Your task to perform on an android device: What is the recent news? Image 0: 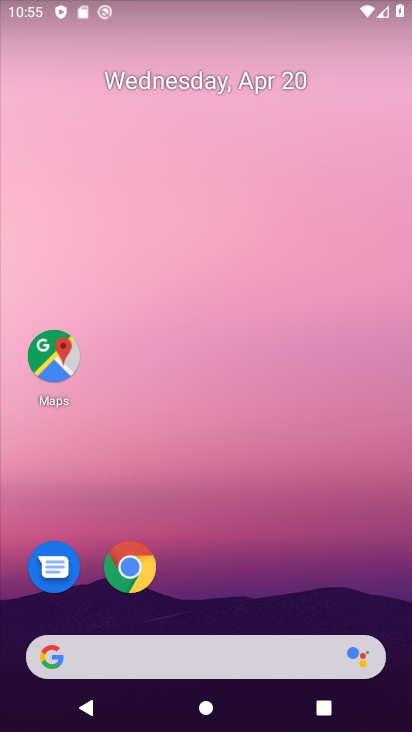
Step 0: click (227, 606)
Your task to perform on an android device: What is the recent news? Image 1: 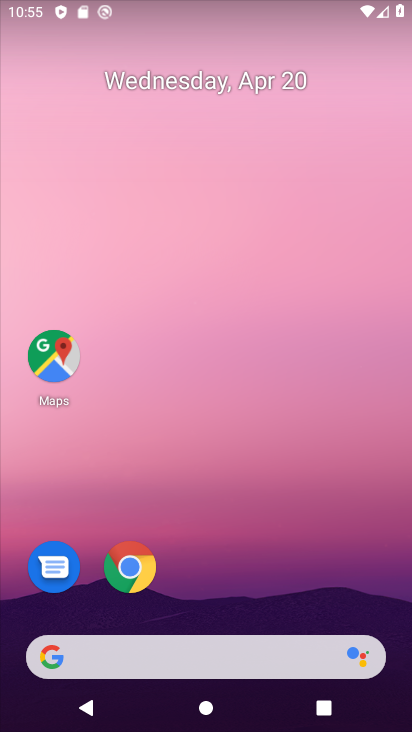
Step 1: task complete